Your task to perform on an android device: Go to Google Image 0: 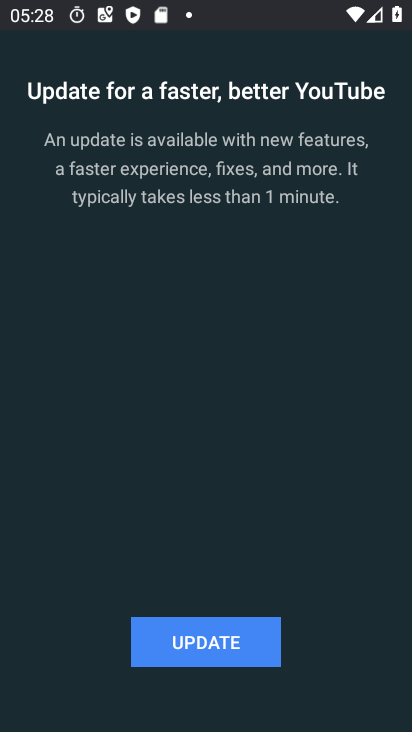
Step 0: press home button
Your task to perform on an android device: Go to Google Image 1: 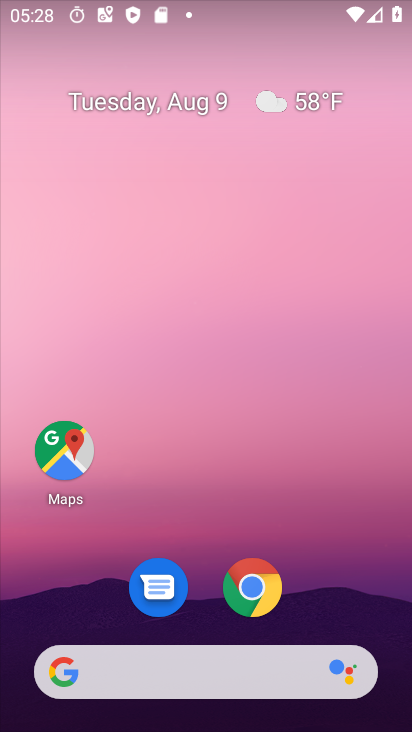
Step 1: drag from (169, 662) to (213, 180)
Your task to perform on an android device: Go to Google Image 2: 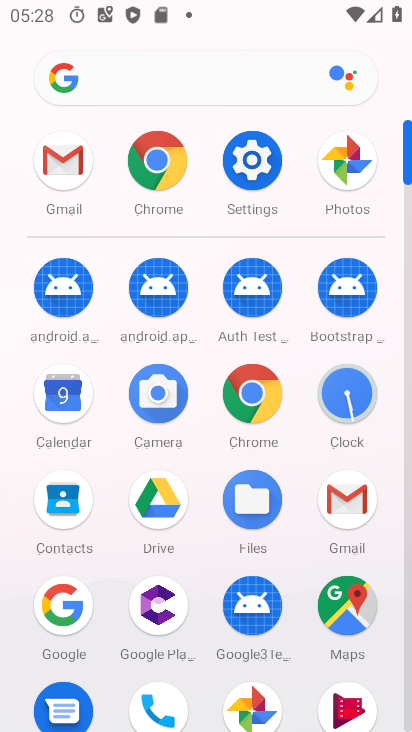
Step 2: click (80, 590)
Your task to perform on an android device: Go to Google Image 3: 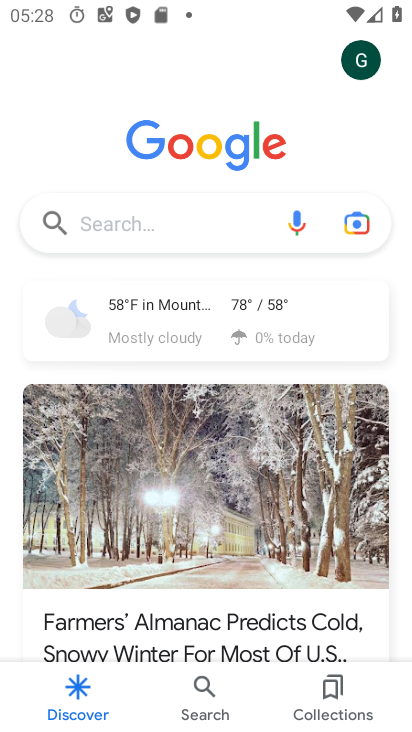
Step 3: task complete